Your task to perform on an android device: change notification settings in the gmail app Image 0: 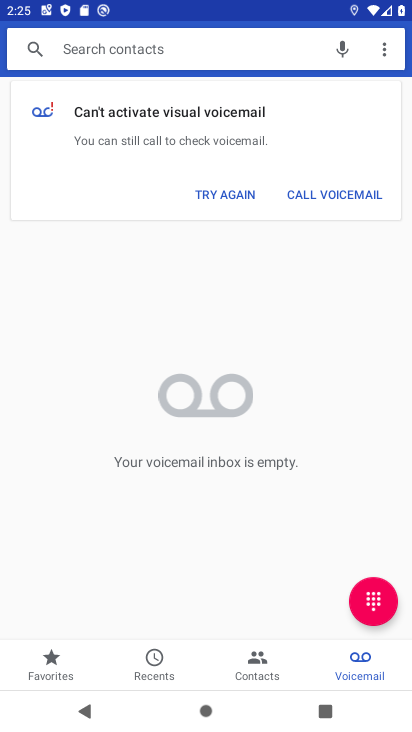
Step 0: press home button
Your task to perform on an android device: change notification settings in the gmail app Image 1: 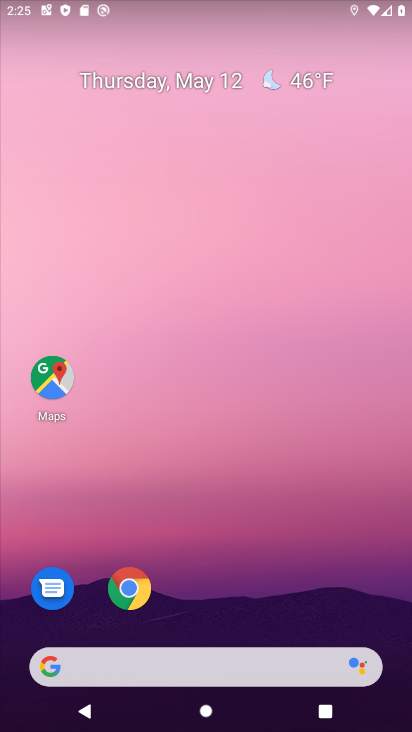
Step 1: drag from (365, 625) to (282, 107)
Your task to perform on an android device: change notification settings in the gmail app Image 2: 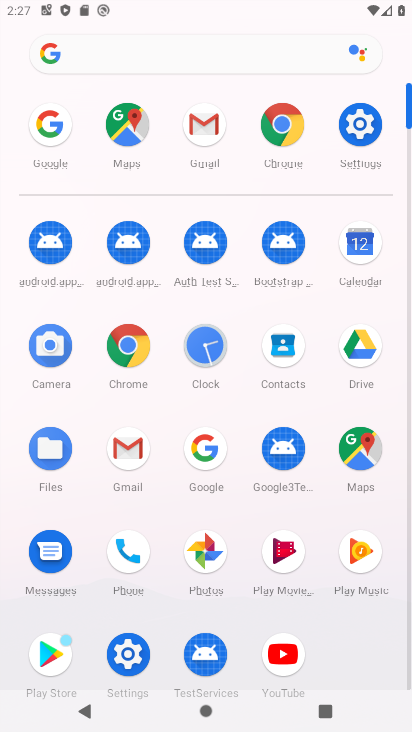
Step 2: click (129, 650)
Your task to perform on an android device: change notification settings in the gmail app Image 3: 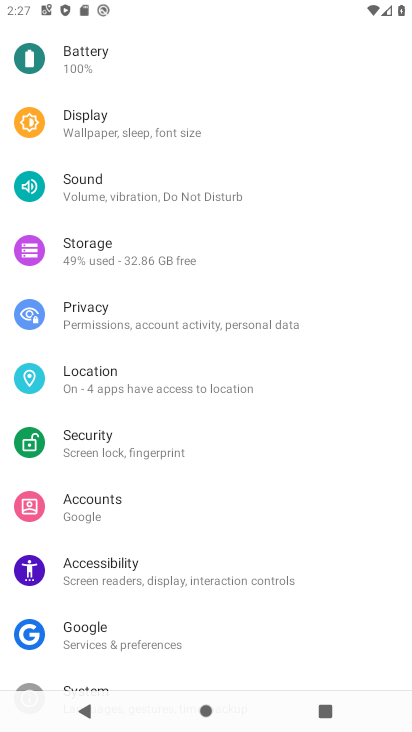
Step 3: task complete